Your task to perform on an android device: turn on airplane mode Image 0: 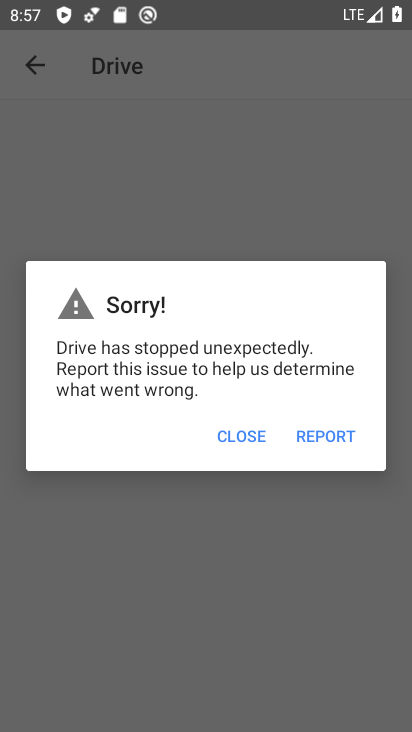
Step 0: press home button
Your task to perform on an android device: turn on airplane mode Image 1: 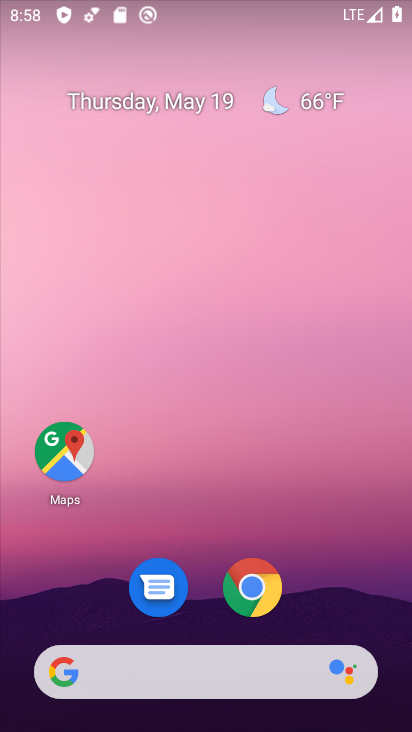
Step 1: drag from (227, 699) to (252, 120)
Your task to perform on an android device: turn on airplane mode Image 2: 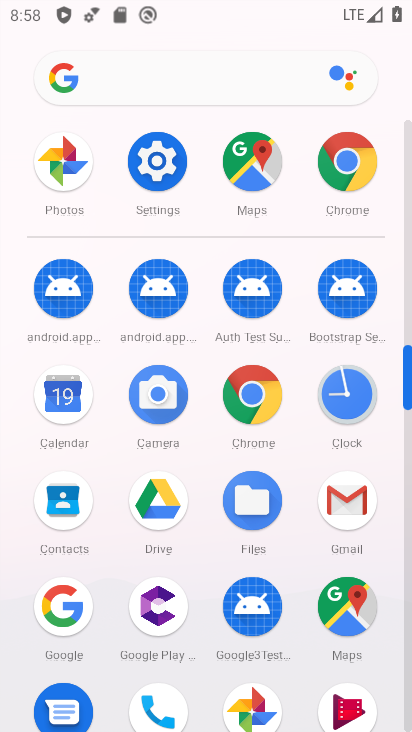
Step 2: click (168, 154)
Your task to perform on an android device: turn on airplane mode Image 3: 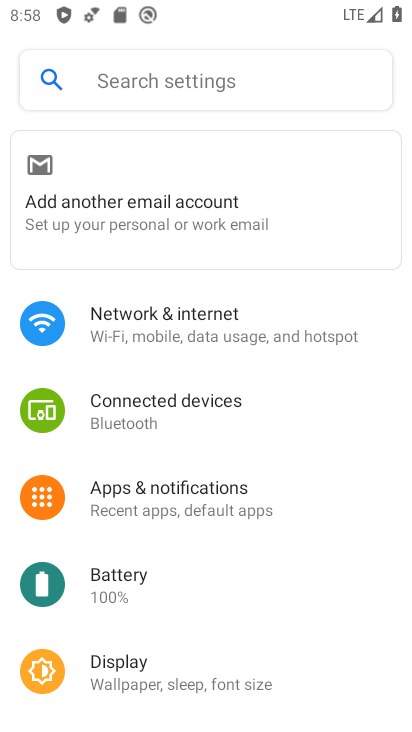
Step 3: click (190, 343)
Your task to perform on an android device: turn on airplane mode Image 4: 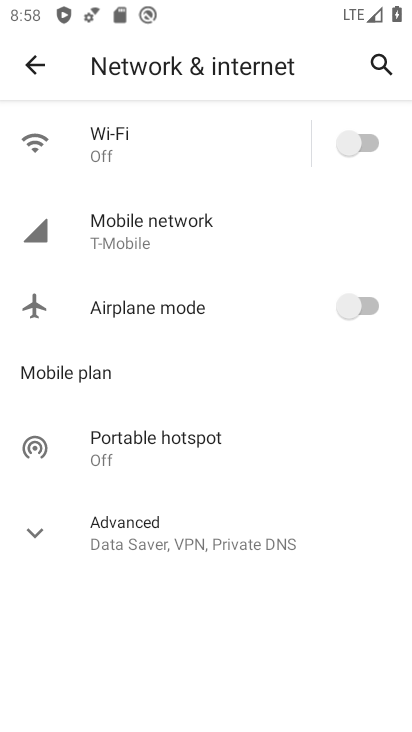
Step 4: click (316, 316)
Your task to perform on an android device: turn on airplane mode Image 5: 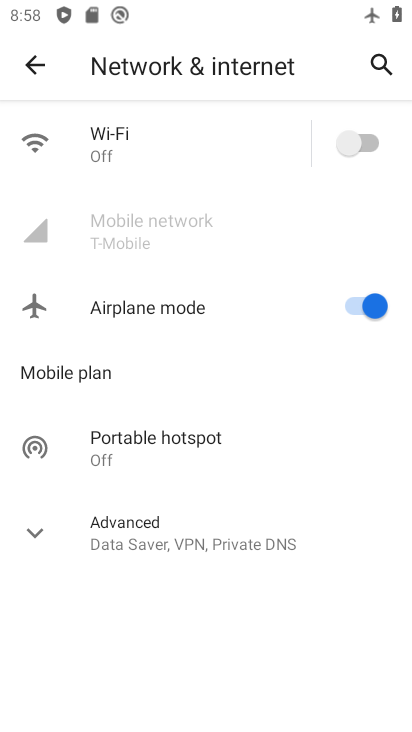
Step 5: task complete